Your task to perform on an android device: Go to CNN.com Image 0: 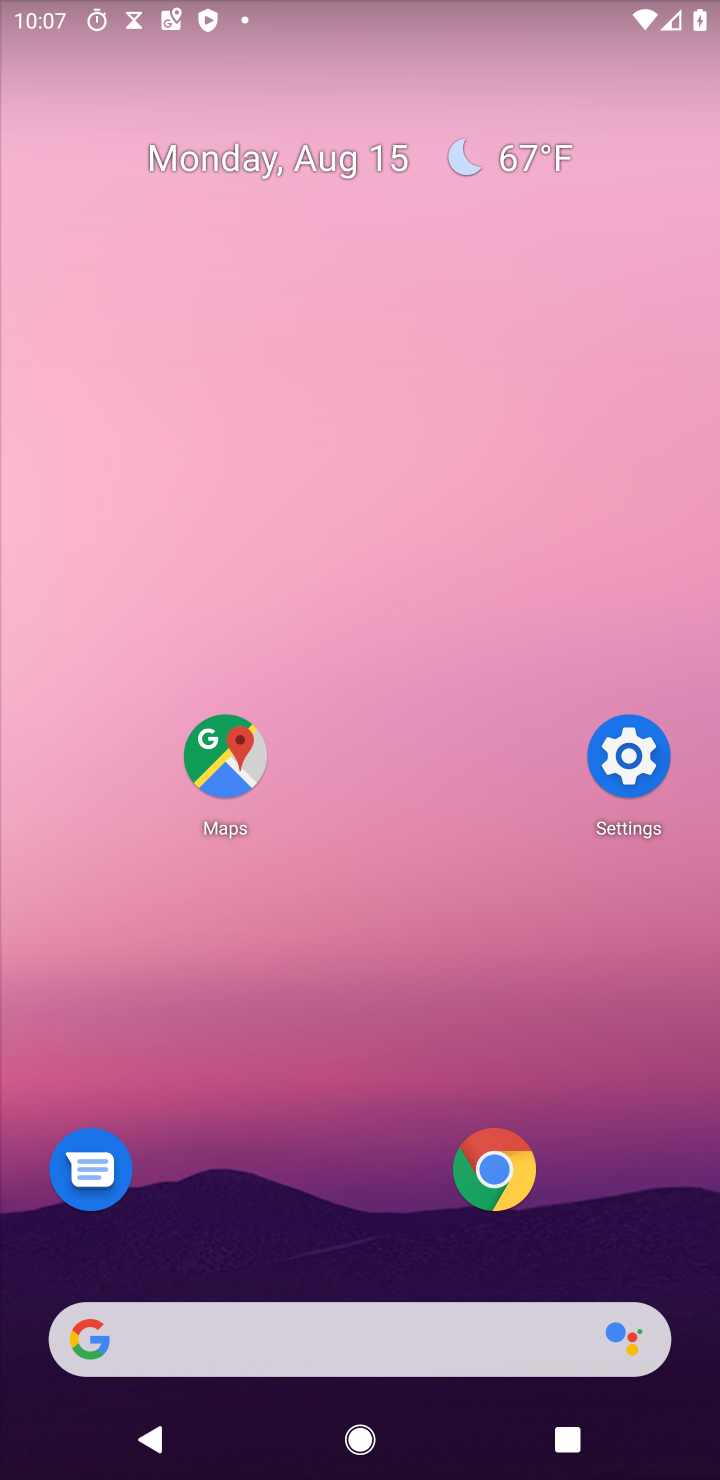
Step 0: press home button
Your task to perform on an android device: Go to CNN.com Image 1: 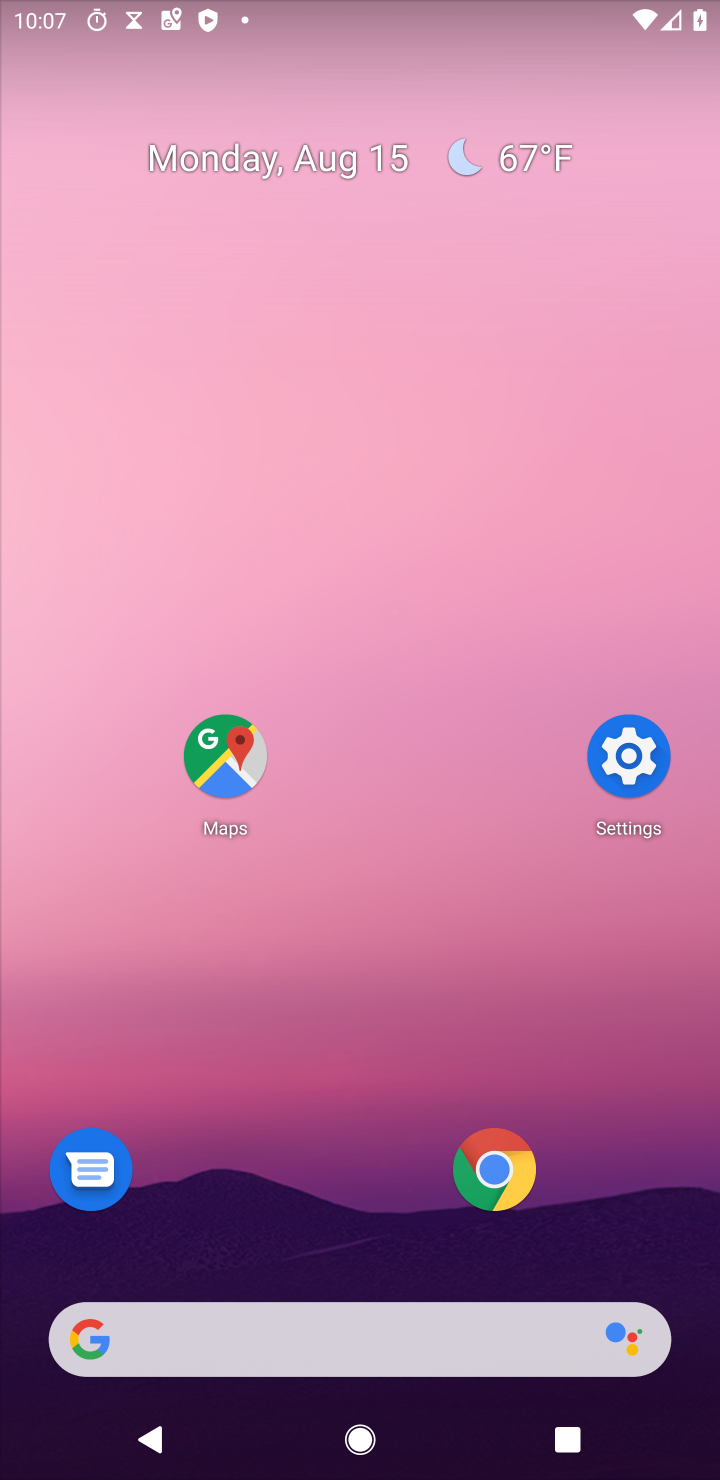
Step 1: click (496, 1178)
Your task to perform on an android device: Go to CNN.com Image 2: 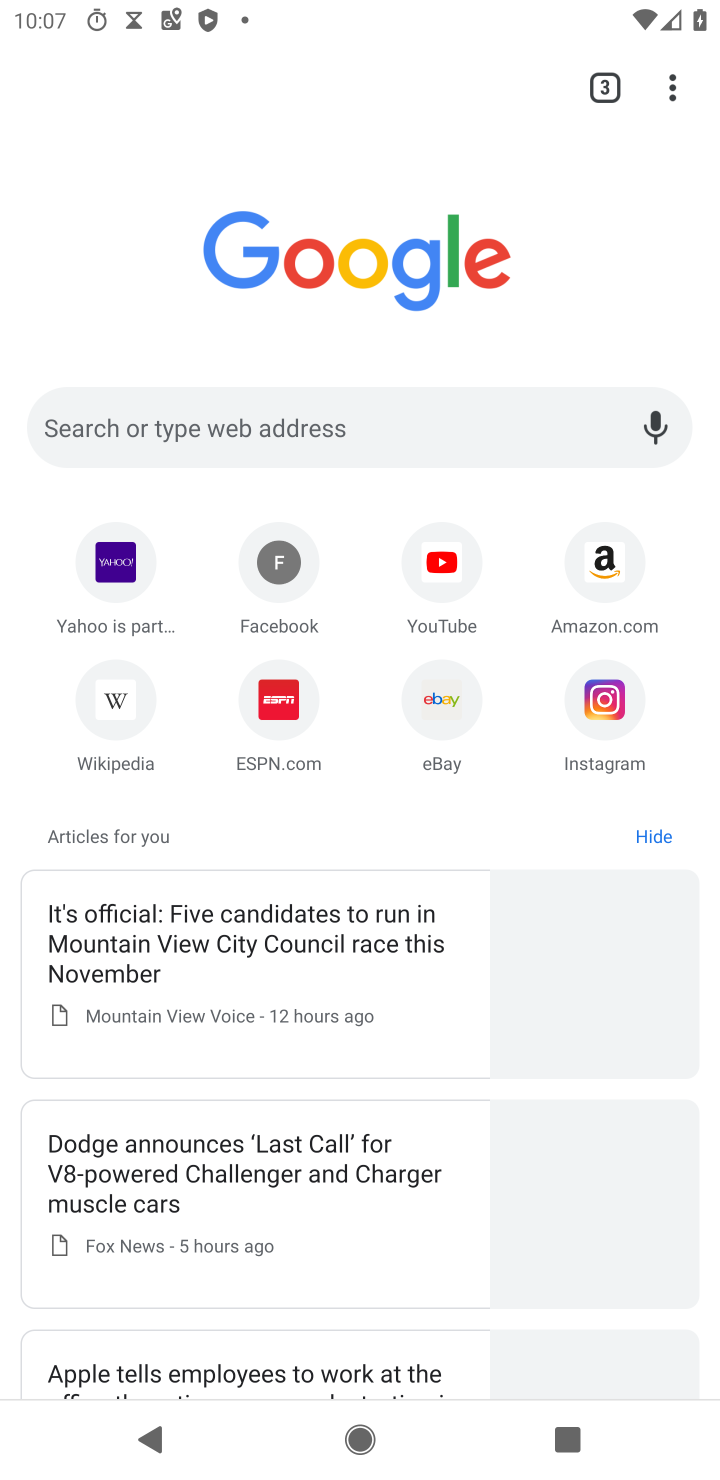
Step 2: click (306, 413)
Your task to perform on an android device: Go to CNN.com Image 3: 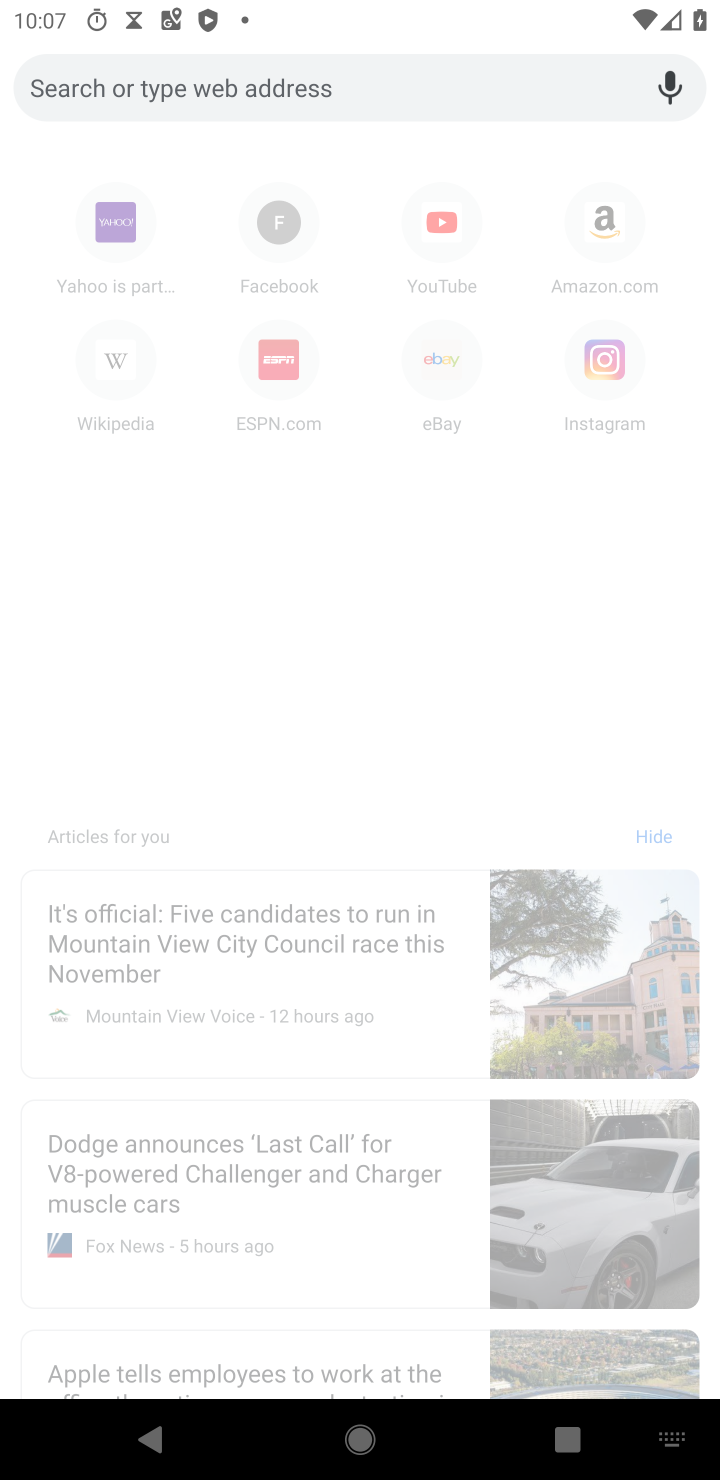
Step 3: type "CNN.com"
Your task to perform on an android device: Go to CNN.com Image 4: 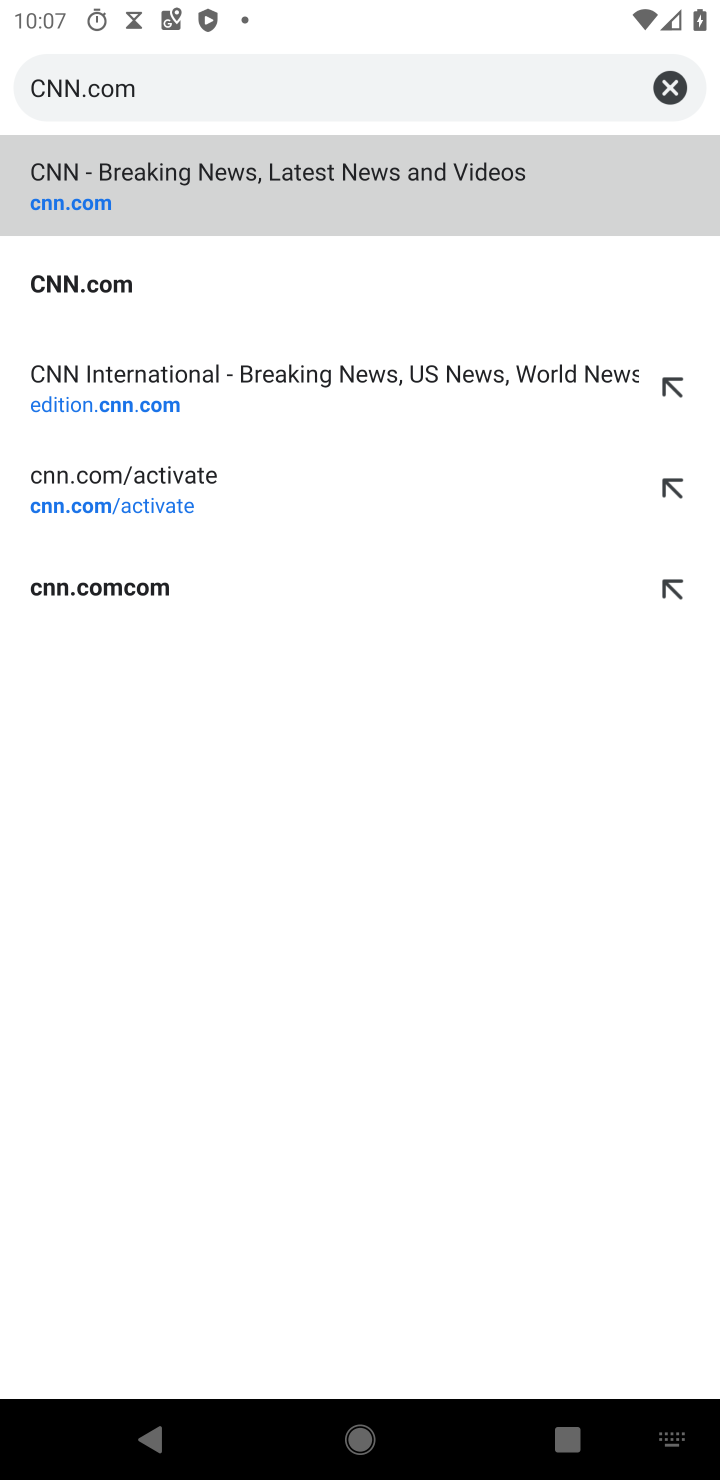
Step 4: click (215, 196)
Your task to perform on an android device: Go to CNN.com Image 5: 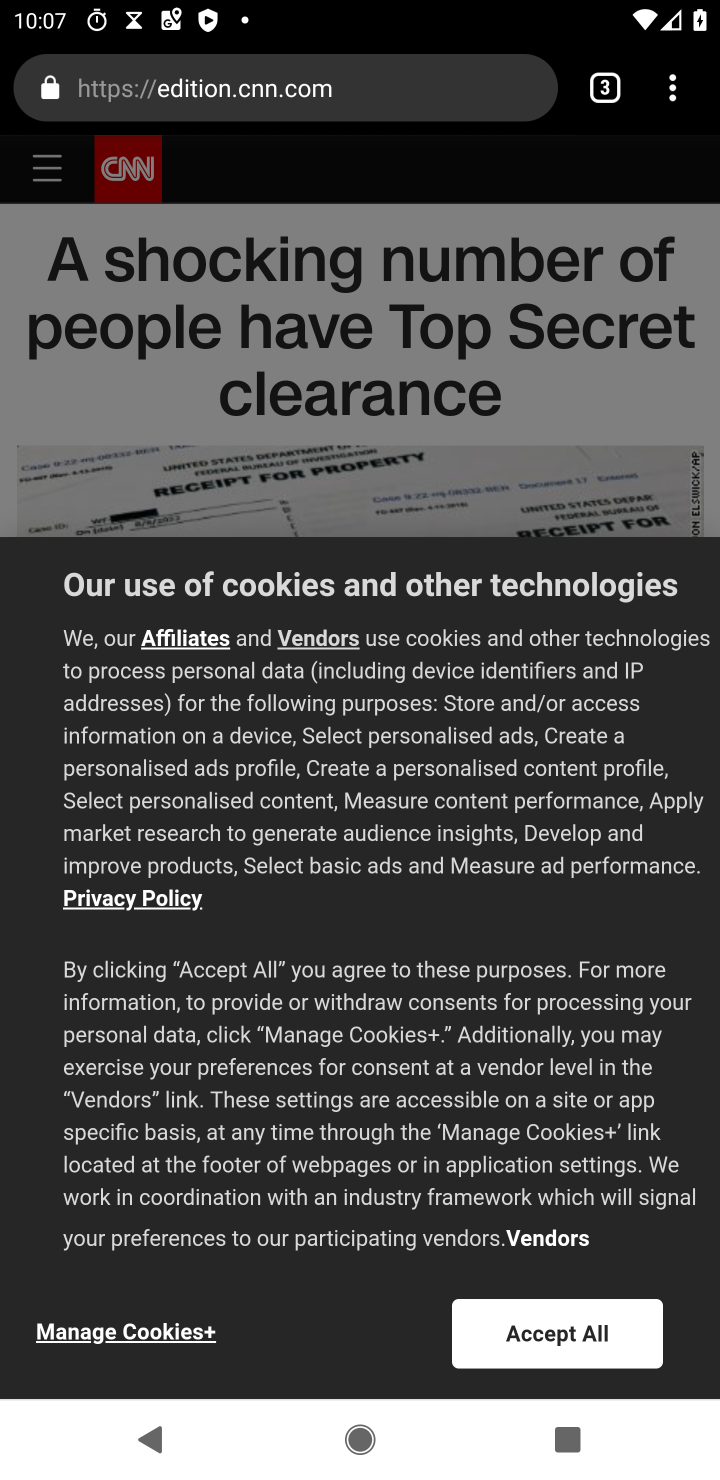
Step 5: click (556, 1328)
Your task to perform on an android device: Go to CNN.com Image 6: 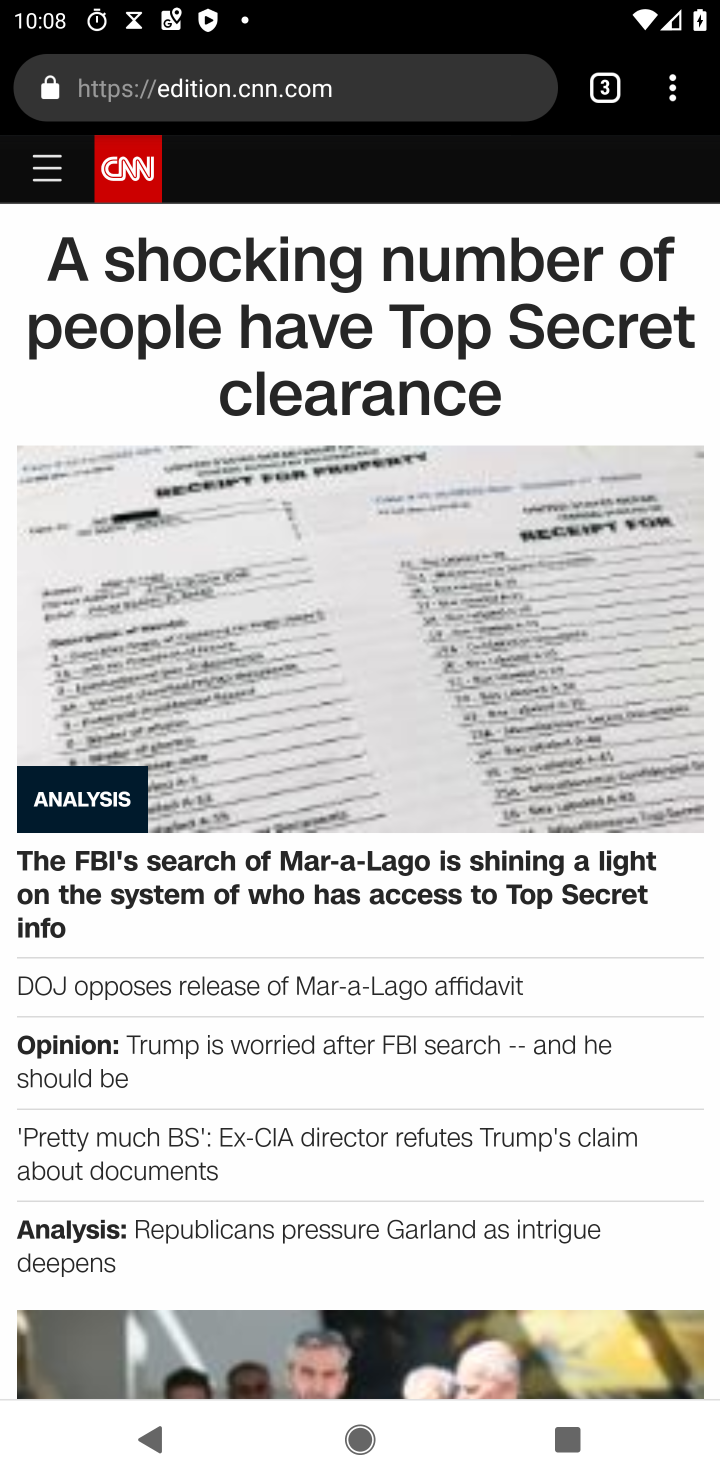
Step 6: task complete